Your task to perform on an android device: see sites visited before in the chrome app Image 0: 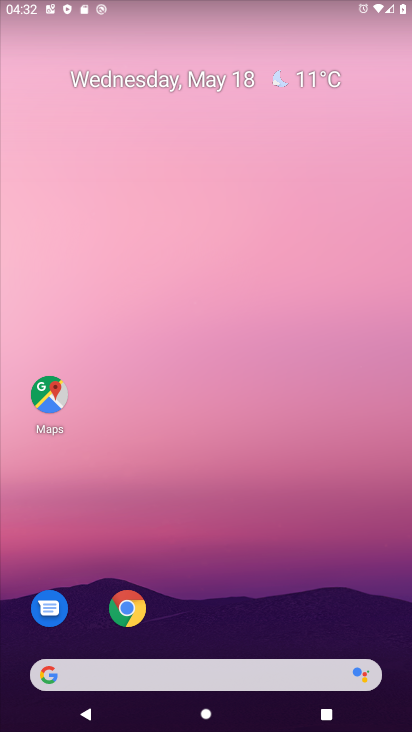
Step 0: click (123, 616)
Your task to perform on an android device: see sites visited before in the chrome app Image 1: 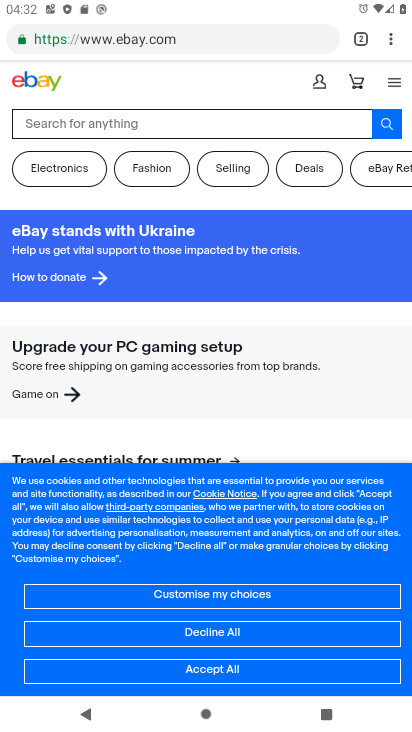
Step 1: click (401, 24)
Your task to perform on an android device: see sites visited before in the chrome app Image 2: 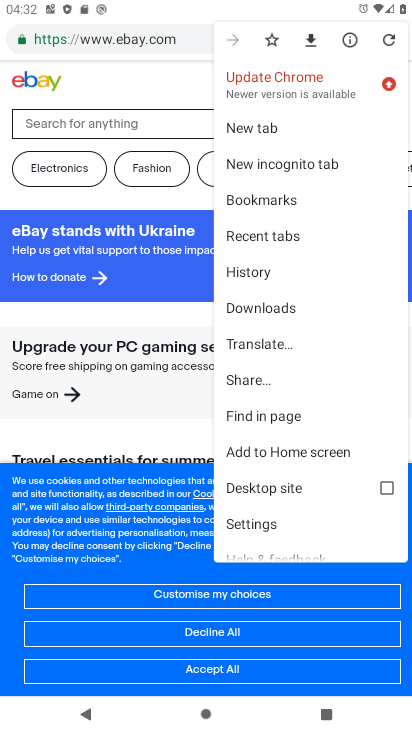
Step 2: click (275, 532)
Your task to perform on an android device: see sites visited before in the chrome app Image 3: 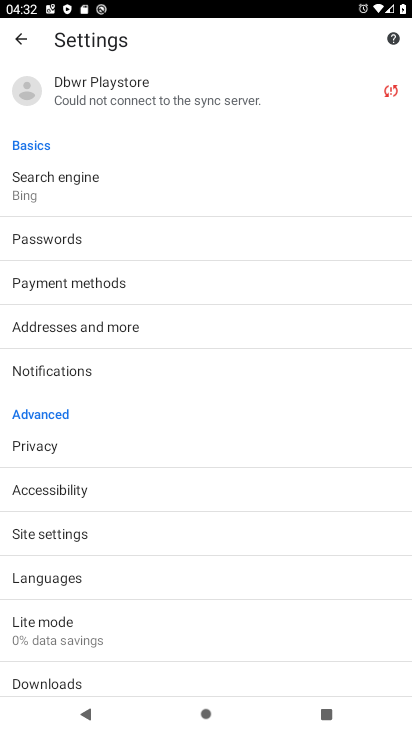
Step 3: click (24, 29)
Your task to perform on an android device: see sites visited before in the chrome app Image 4: 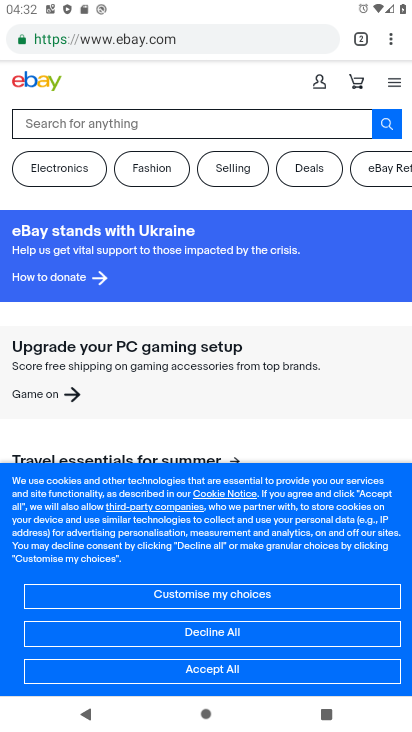
Step 4: click (385, 40)
Your task to perform on an android device: see sites visited before in the chrome app Image 5: 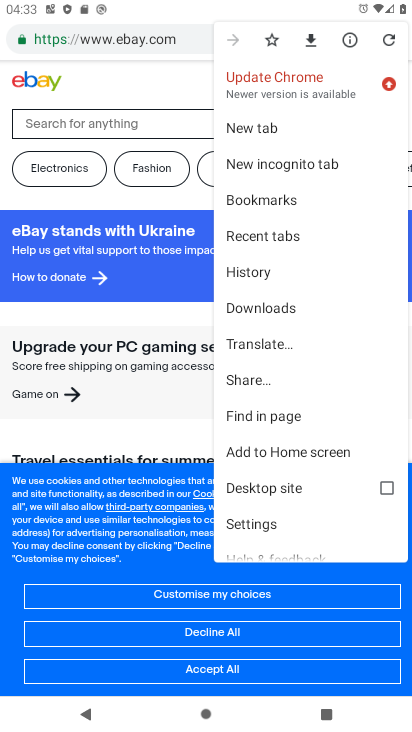
Step 5: click (263, 264)
Your task to perform on an android device: see sites visited before in the chrome app Image 6: 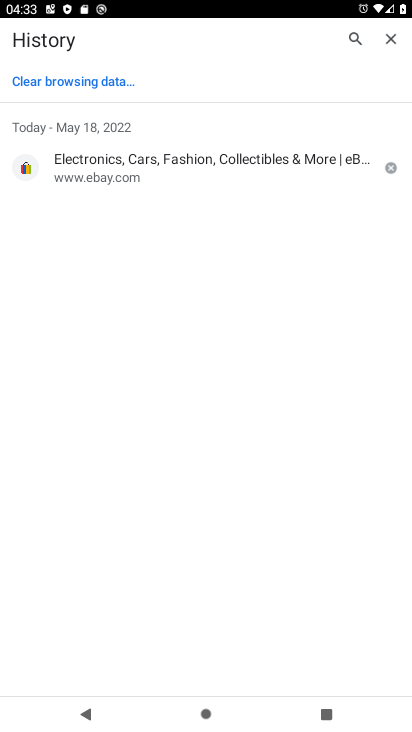
Step 6: task complete